Your task to perform on an android device: Open my contact list Image 0: 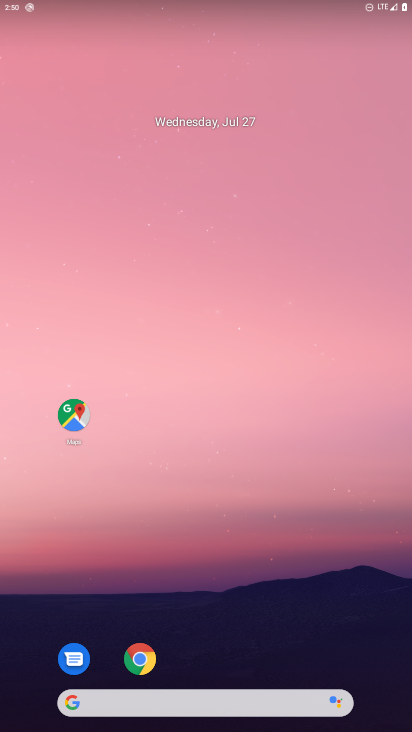
Step 0: click (225, 314)
Your task to perform on an android device: Open my contact list Image 1: 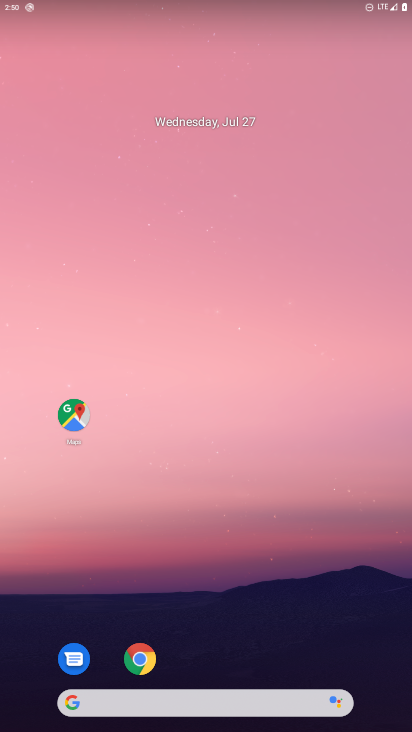
Step 1: drag from (214, 638) to (226, 372)
Your task to perform on an android device: Open my contact list Image 2: 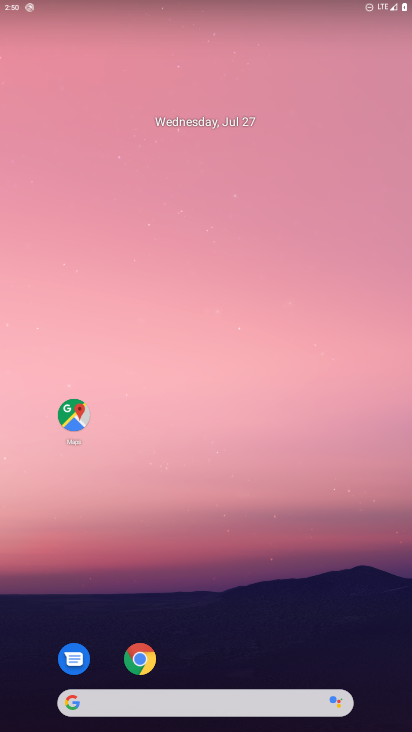
Step 2: drag from (229, 659) to (350, 285)
Your task to perform on an android device: Open my contact list Image 3: 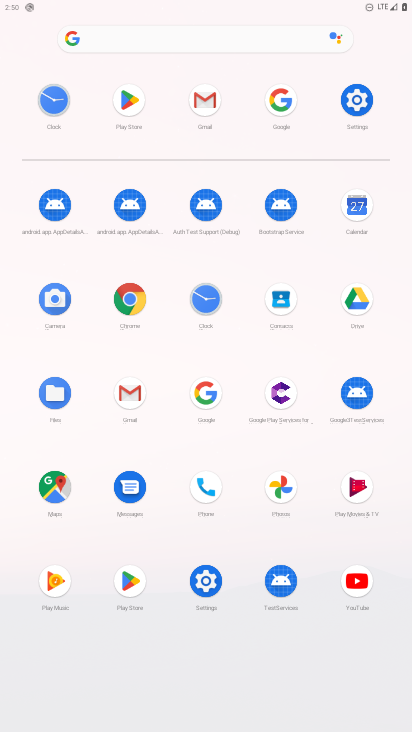
Step 3: click (285, 293)
Your task to perform on an android device: Open my contact list Image 4: 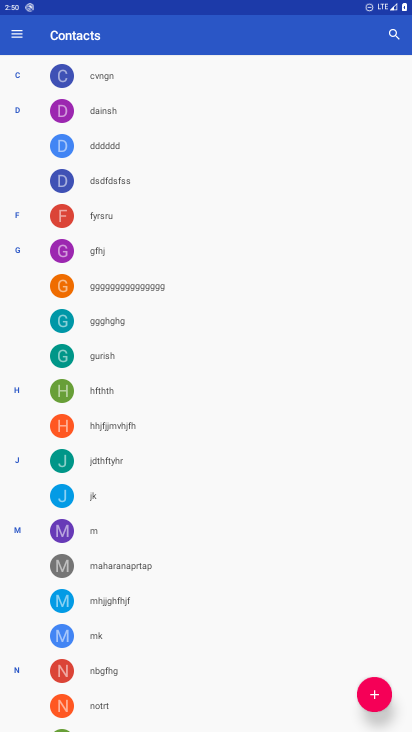
Step 4: click (15, 33)
Your task to perform on an android device: Open my contact list Image 5: 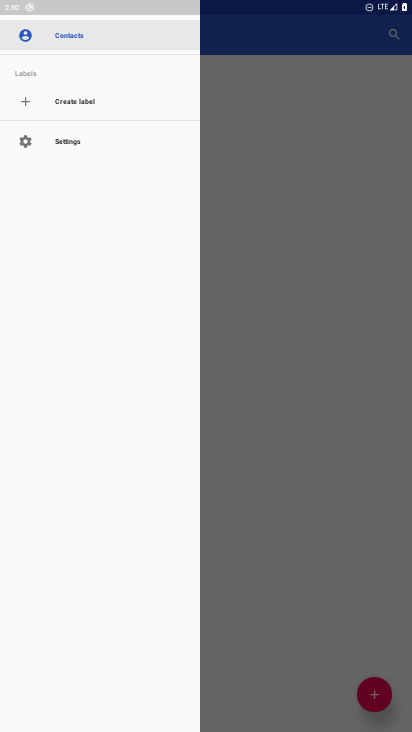
Step 5: click (242, 120)
Your task to perform on an android device: Open my contact list Image 6: 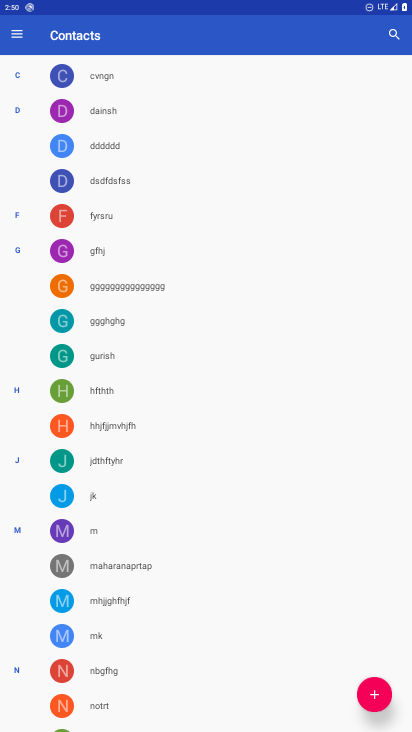
Step 6: drag from (244, 630) to (248, 324)
Your task to perform on an android device: Open my contact list Image 7: 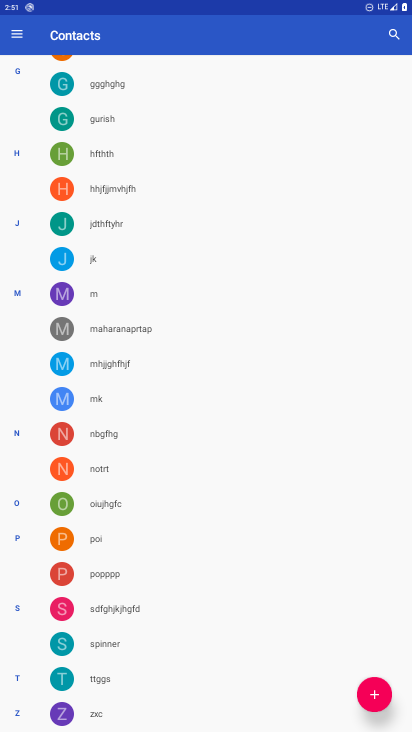
Step 7: drag from (186, 627) to (180, 288)
Your task to perform on an android device: Open my contact list Image 8: 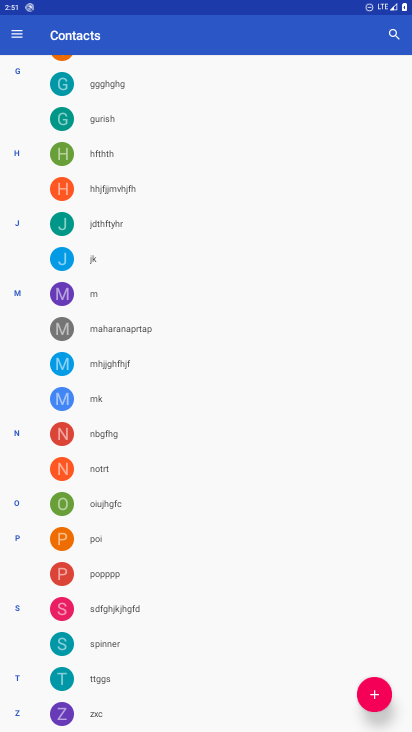
Step 8: drag from (221, 242) to (179, 628)
Your task to perform on an android device: Open my contact list Image 9: 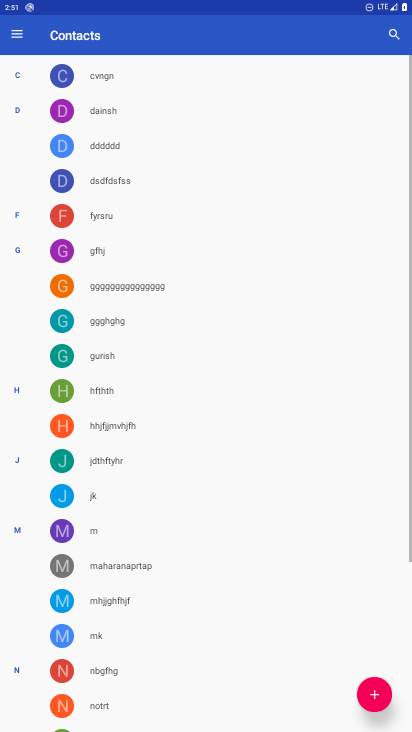
Step 9: drag from (253, 396) to (239, 661)
Your task to perform on an android device: Open my contact list Image 10: 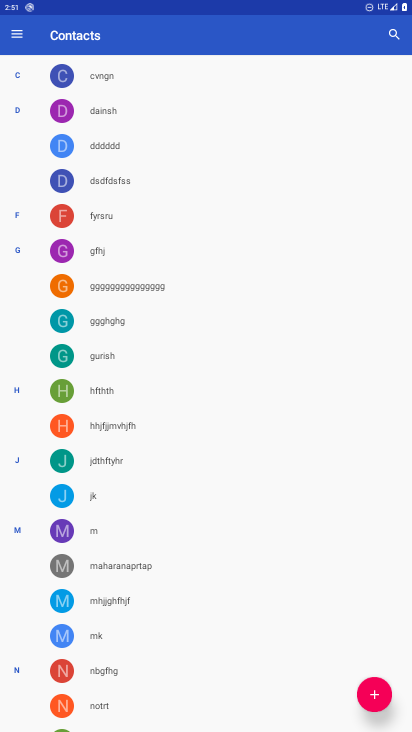
Step 10: drag from (220, 226) to (209, 702)
Your task to perform on an android device: Open my contact list Image 11: 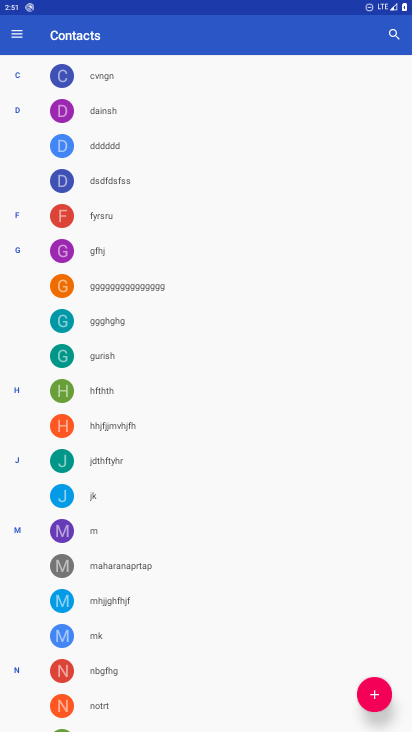
Step 11: click (112, 463)
Your task to perform on an android device: Open my contact list Image 12: 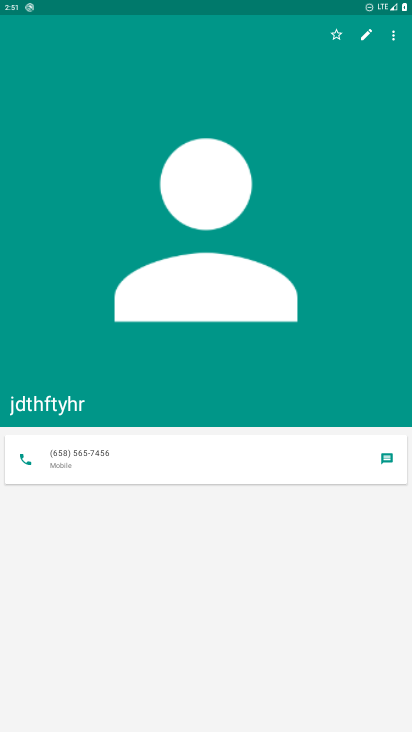
Step 12: task complete